Your task to perform on an android device: turn off notifications in google photos Image 0: 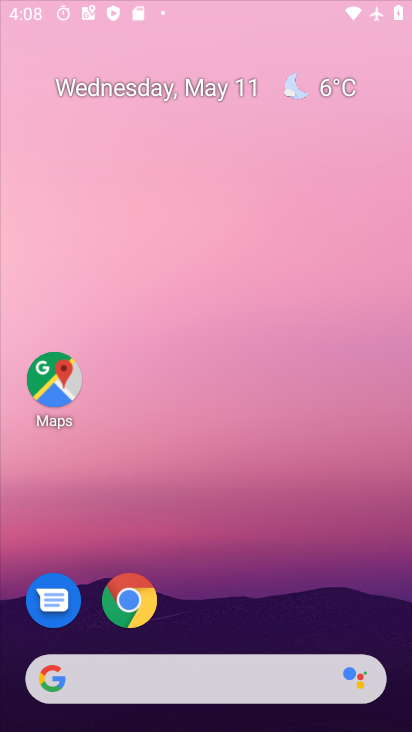
Step 0: drag from (328, 676) to (83, 110)
Your task to perform on an android device: turn off notifications in google photos Image 1: 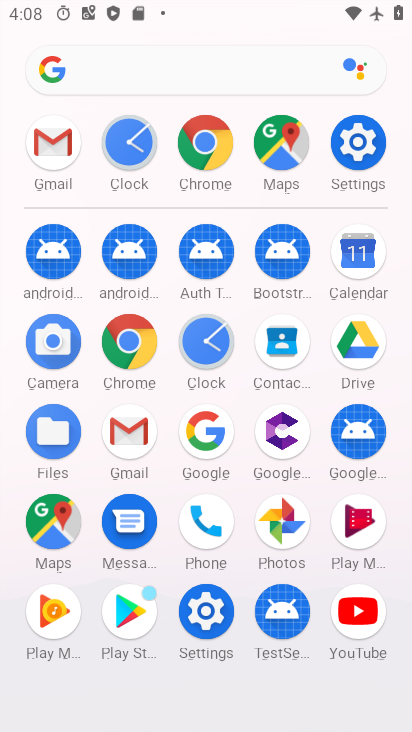
Step 1: click (273, 530)
Your task to perform on an android device: turn off notifications in google photos Image 2: 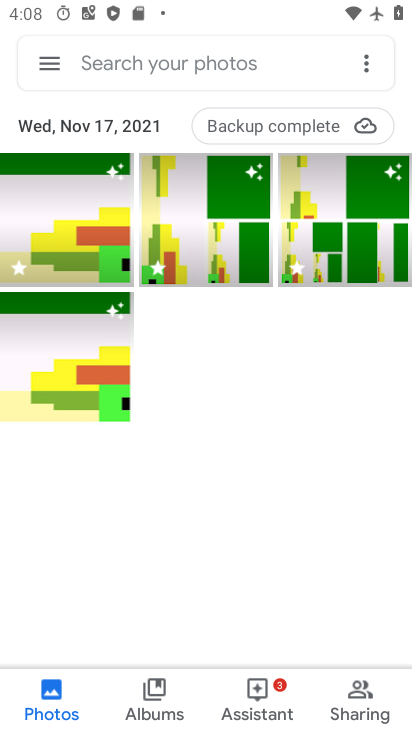
Step 2: click (42, 67)
Your task to perform on an android device: turn off notifications in google photos Image 3: 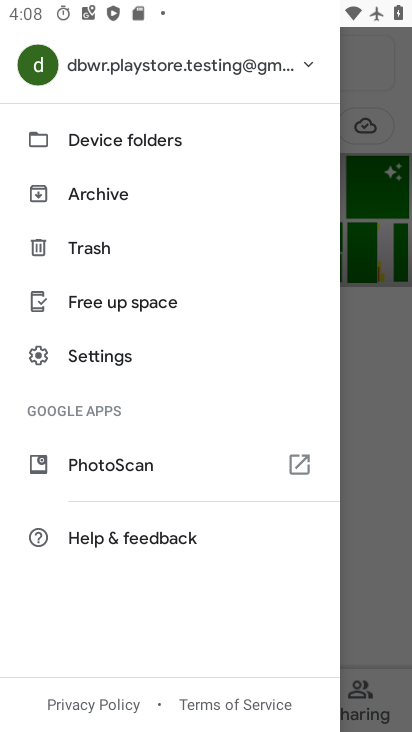
Step 3: click (104, 355)
Your task to perform on an android device: turn off notifications in google photos Image 4: 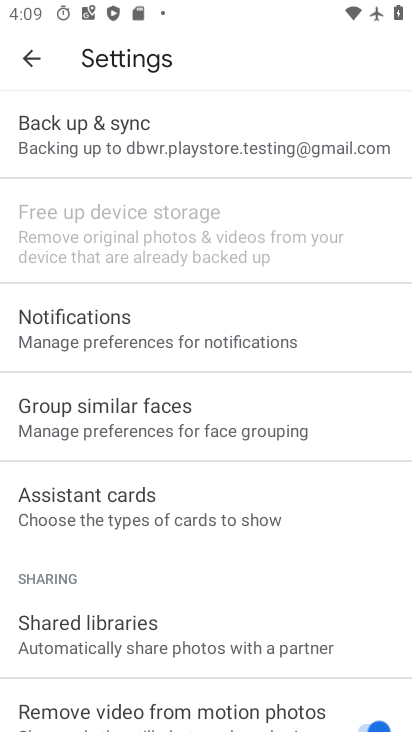
Step 4: drag from (169, 577) to (124, 199)
Your task to perform on an android device: turn off notifications in google photos Image 5: 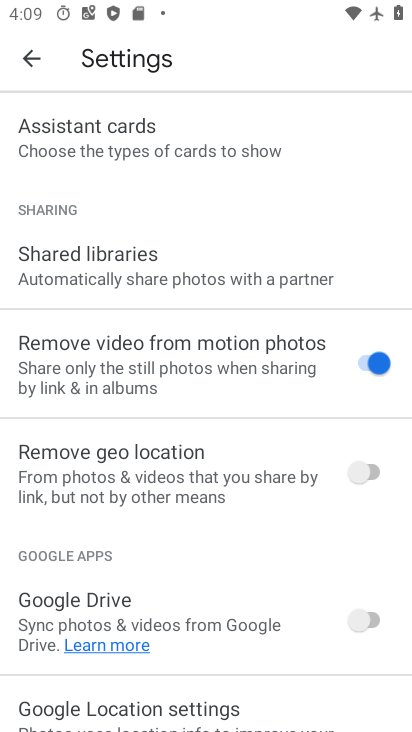
Step 5: drag from (224, 617) to (162, 154)
Your task to perform on an android device: turn off notifications in google photos Image 6: 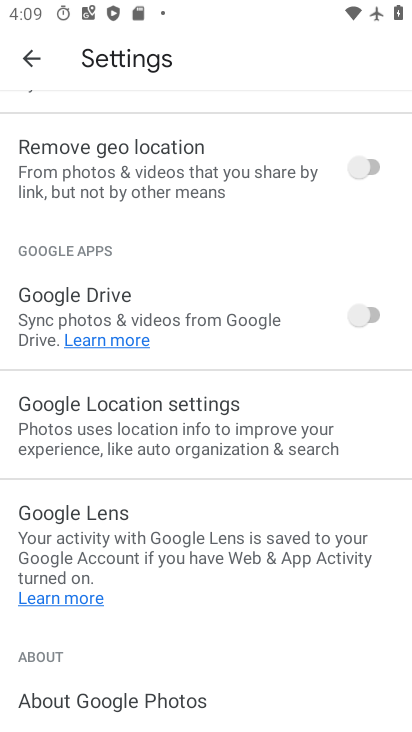
Step 6: drag from (149, 303) to (156, 727)
Your task to perform on an android device: turn off notifications in google photos Image 7: 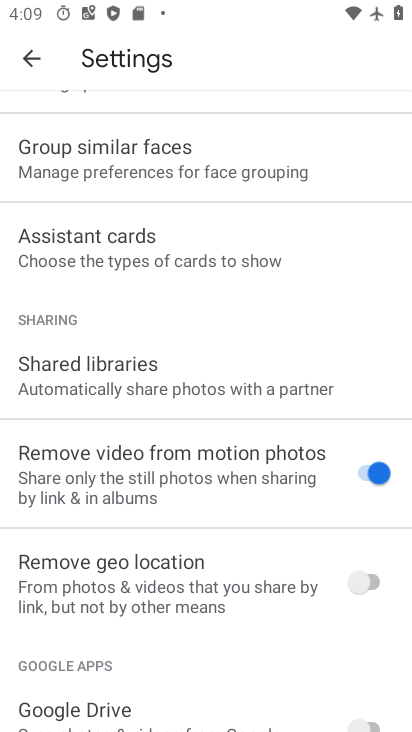
Step 7: drag from (152, 273) to (198, 703)
Your task to perform on an android device: turn off notifications in google photos Image 8: 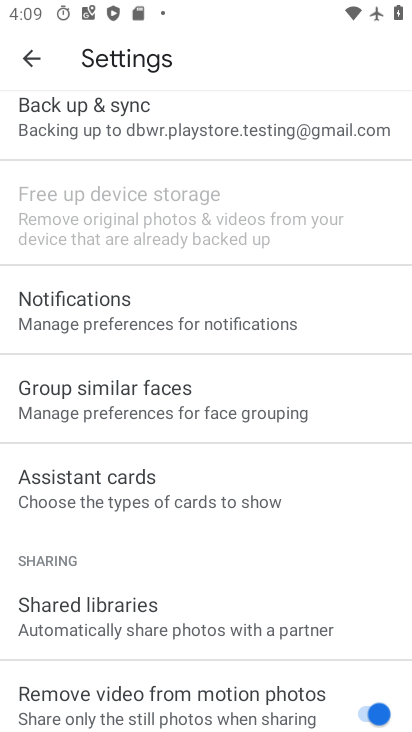
Step 8: drag from (149, 283) to (263, 656)
Your task to perform on an android device: turn off notifications in google photos Image 9: 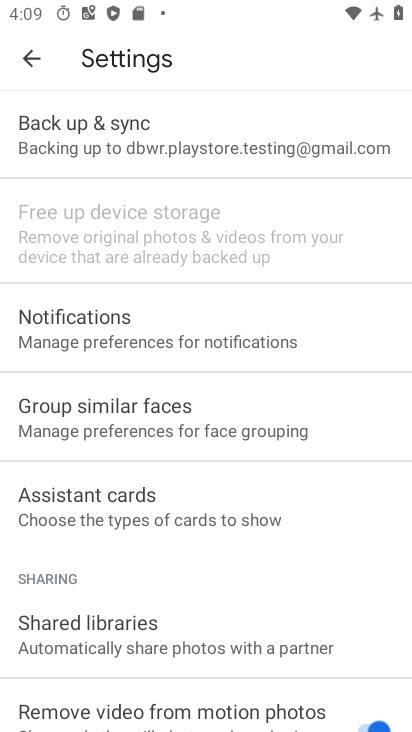
Step 9: drag from (188, 231) to (236, 675)
Your task to perform on an android device: turn off notifications in google photos Image 10: 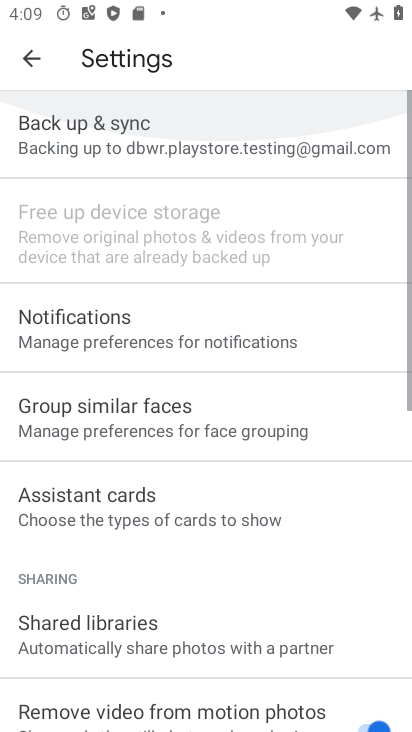
Step 10: drag from (148, 246) to (188, 656)
Your task to perform on an android device: turn off notifications in google photos Image 11: 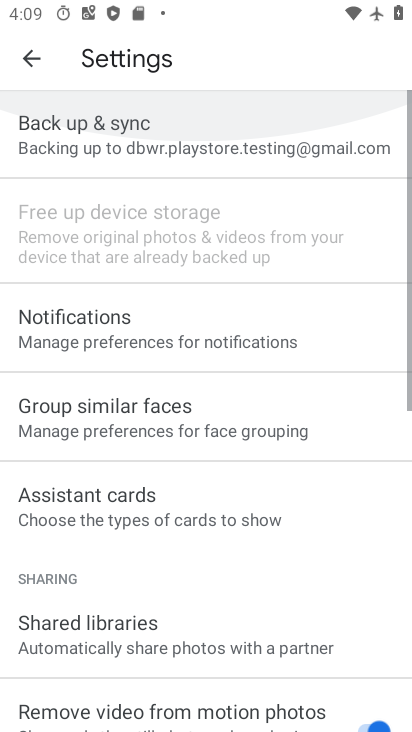
Step 11: drag from (89, 238) to (189, 593)
Your task to perform on an android device: turn off notifications in google photos Image 12: 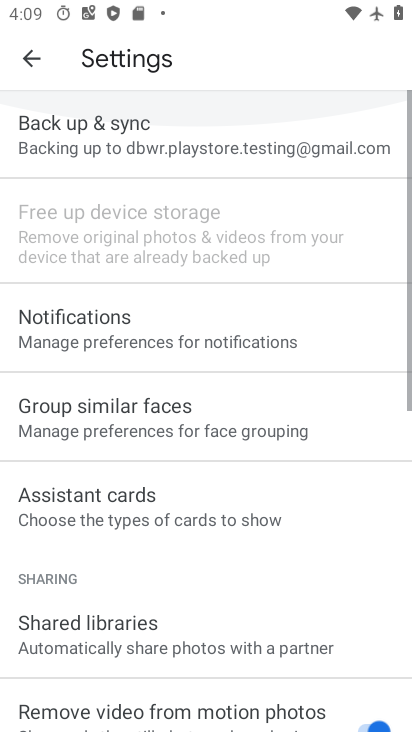
Step 12: drag from (217, 283) to (230, 615)
Your task to perform on an android device: turn off notifications in google photos Image 13: 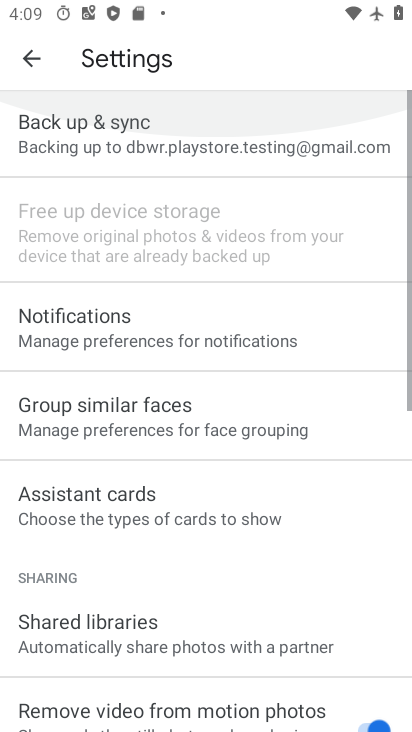
Step 13: drag from (160, 249) to (132, 670)
Your task to perform on an android device: turn off notifications in google photos Image 14: 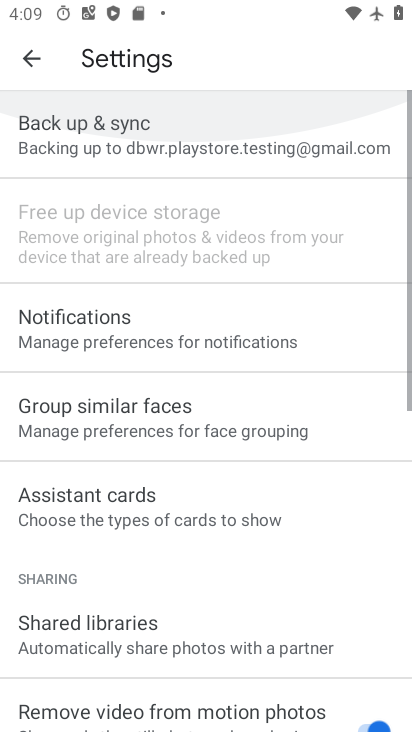
Step 14: drag from (73, 537) to (130, 690)
Your task to perform on an android device: turn off notifications in google photos Image 15: 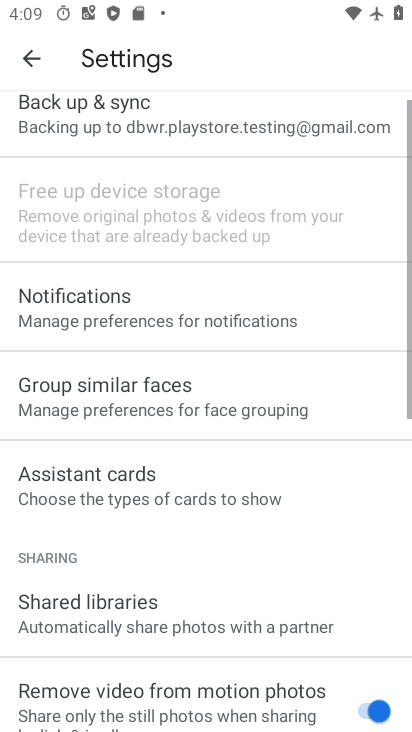
Step 15: drag from (112, 309) to (210, 668)
Your task to perform on an android device: turn off notifications in google photos Image 16: 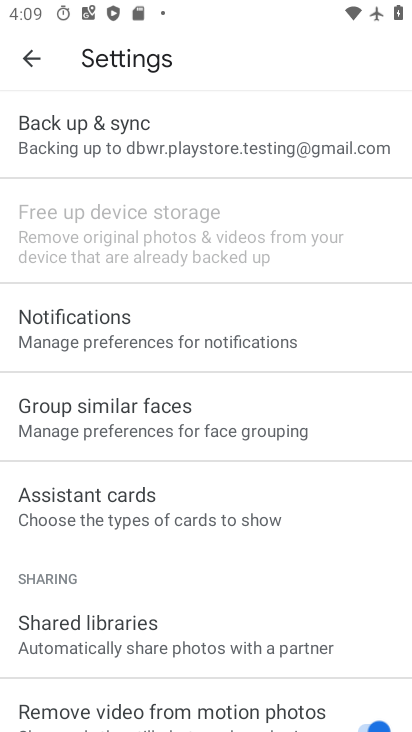
Step 16: click (126, 337)
Your task to perform on an android device: turn off notifications in google photos Image 17: 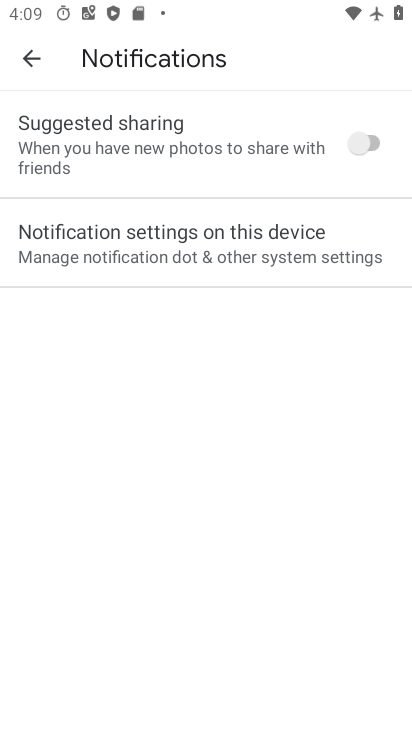
Step 17: click (210, 241)
Your task to perform on an android device: turn off notifications in google photos Image 18: 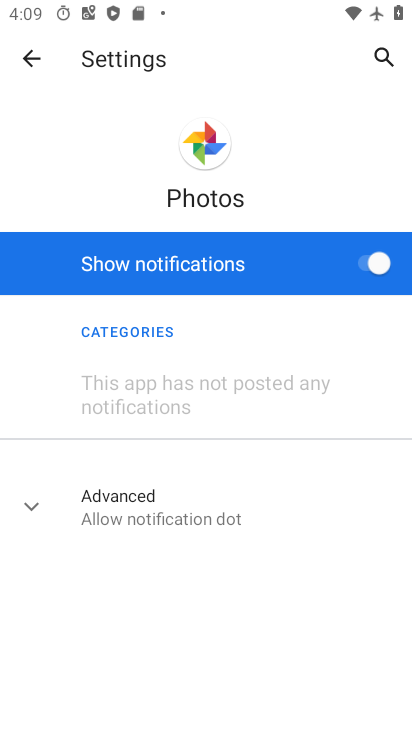
Step 18: click (369, 262)
Your task to perform on an android device: turn off notifications in google photos Image 19: 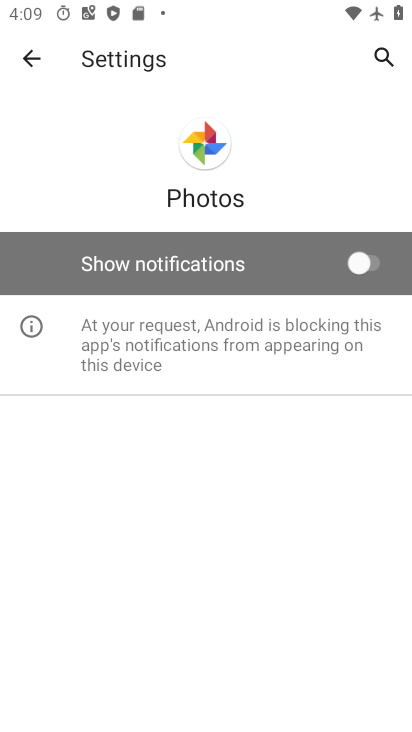
Step 19: task complete